Your task to perform on an android device: toggle notifications settings in the gmail app Image 0: 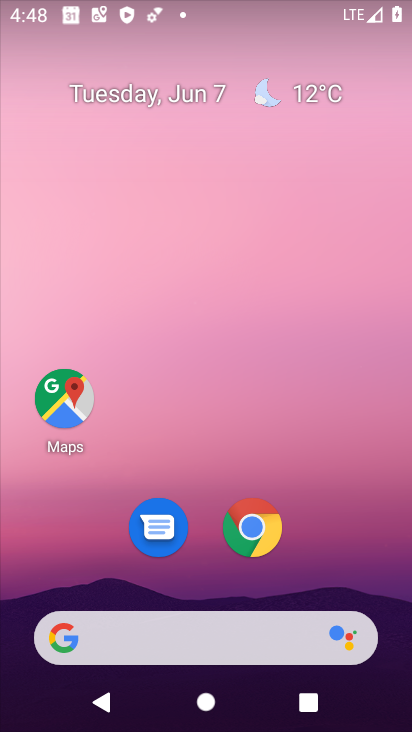
Step 0: drag from (336, 537) to (159, 36)
Your task to perform on an android device: toggle notifications settings in the gmail app Image 1: 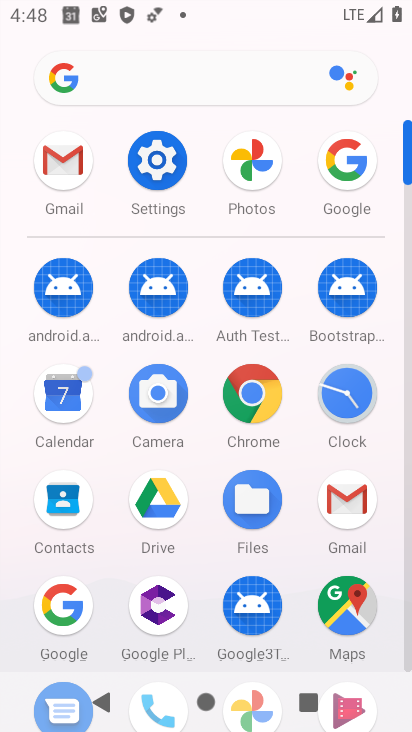
Step 1: click (65, 153)
Your task to perform on an android device: toggle notifications settings in the gmail app Image 2: 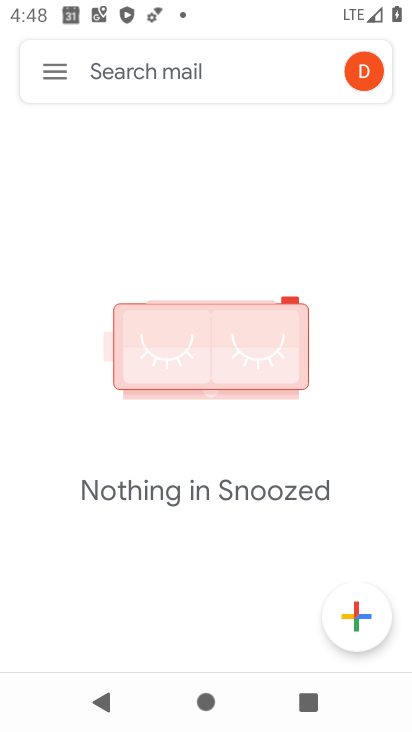
Step 2: click (54, 63)
Your task to perform on an android device: toggle notifications settings in the gmail app Image 3: 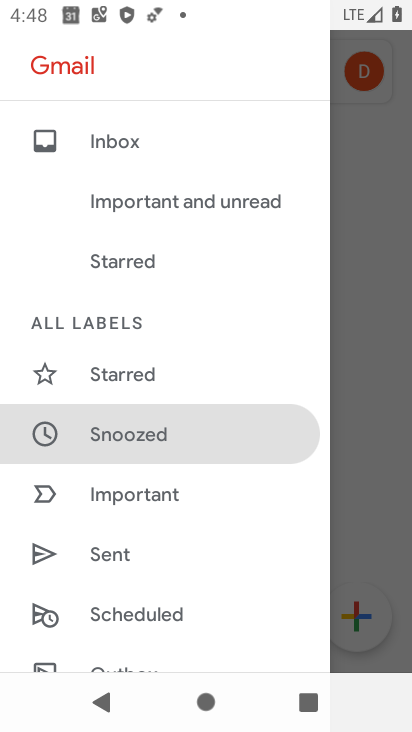
Step 3: drag from (146, 522) to (149, 339)
Your task to perform on an android device: toggle notifications settings in the gmail app Image 4: 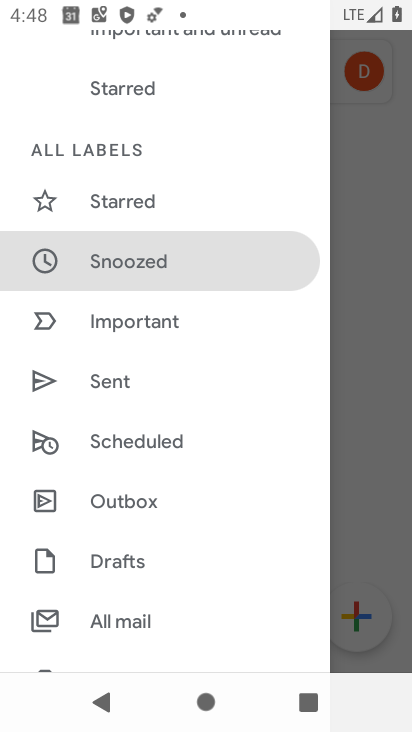
Step 4: drag from (111, 463) to (145, 317)
Your task to perform on an android device: toggle notifications settings in the gmail app Image 5: 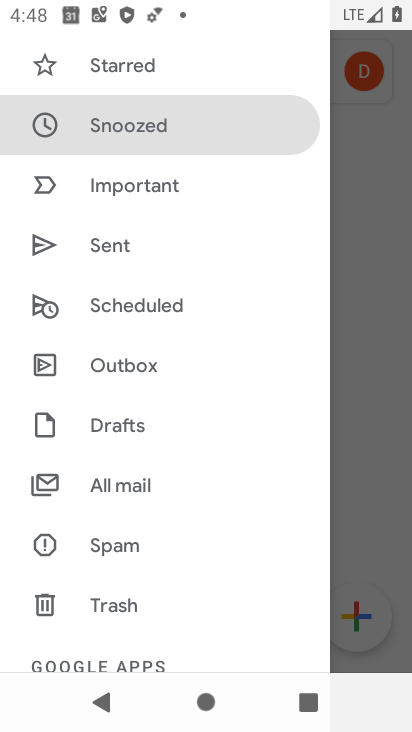
Step 5: drag from (107, 388) to (144, 293)
Your task to perform on an android device: toggle notifications settings in the gmail app Image 6: 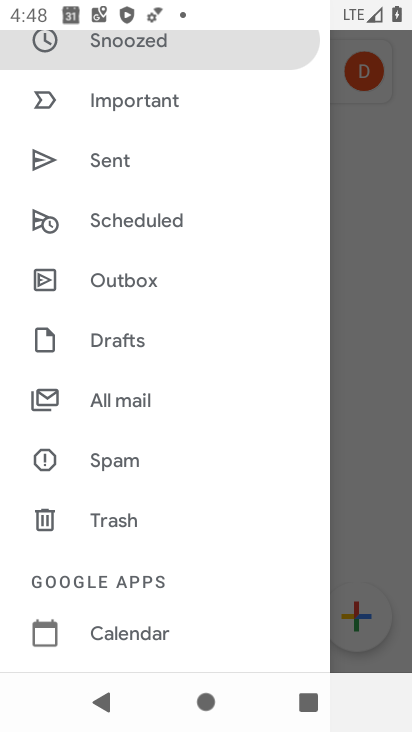
Step 6: drag from (91, 433) to (146, 323)
Your task to perform on an android device: toggle notifications settings in the gmail app Image 7: 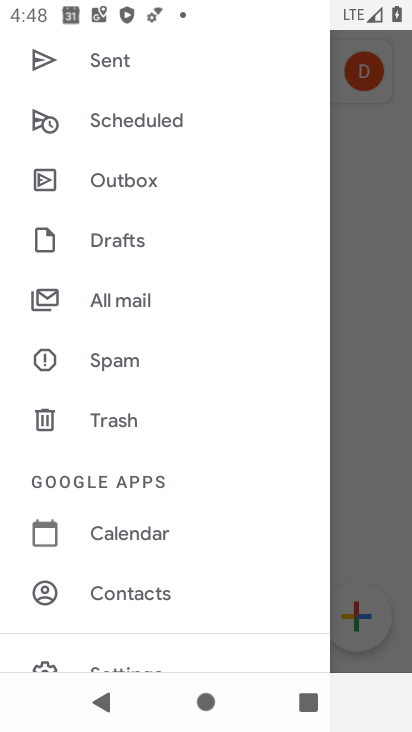
Step 7: drag from (96, 396) to (126, 312)
Your task to perform on an android device: toggle notifications settings in the gmail app Image 8: 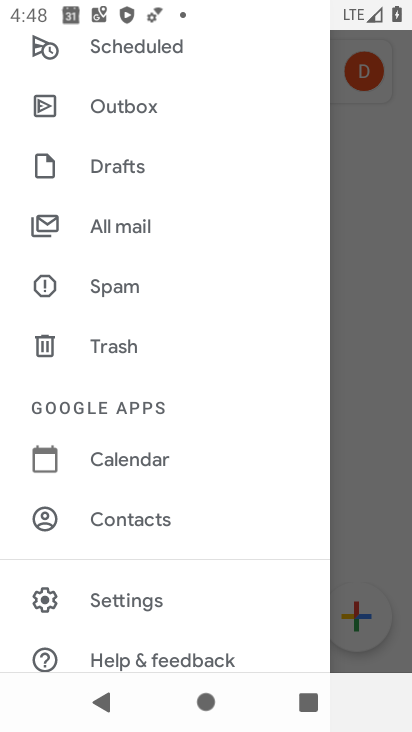
Step 8: drag from (98, 481) to (146, 368)
Your task to perform on an android device: toggle notifications settings in the gmail app Image 9: 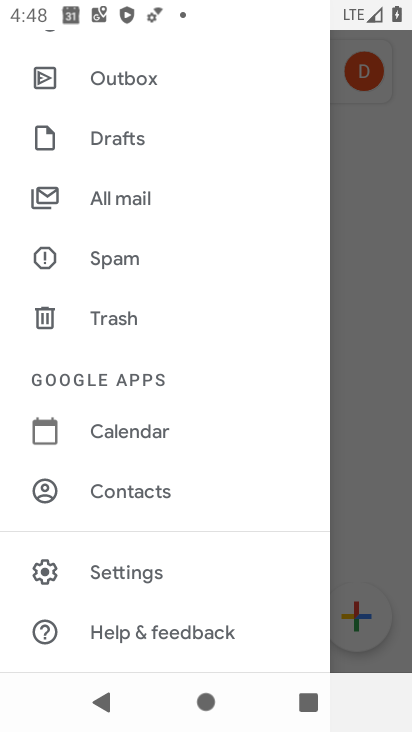
Step 9: click (131, 573)
Your task to perform on an android device: toggle notifications settings in the gmail app Image 10: 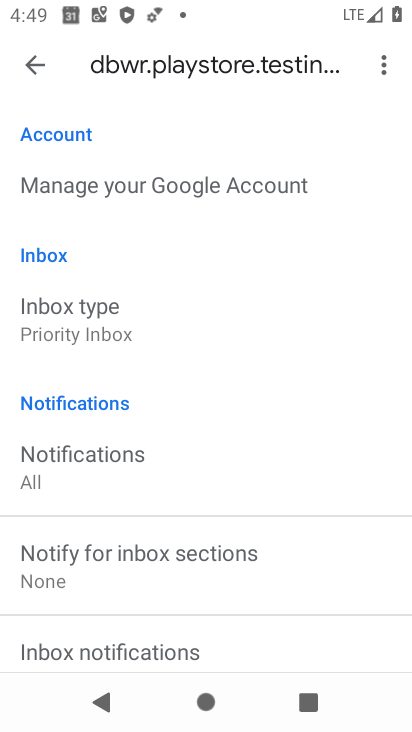
Step 10: drag from (183, 479) to (215, 331)
Your task to perform on an android device: toggle notifications settings in the gmail app Image 11: 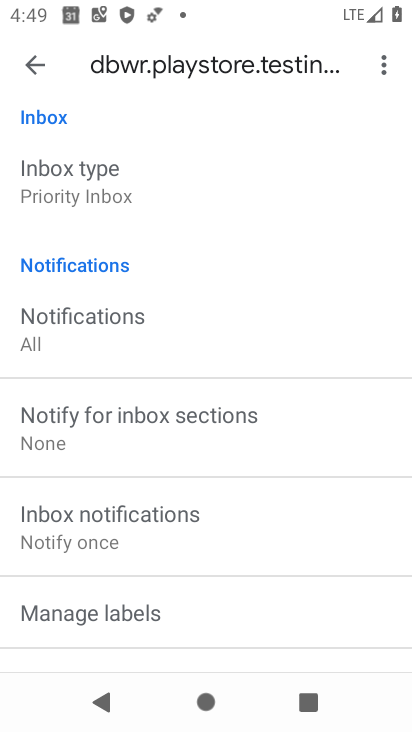
Step 11: drag from (187, 539) to (155, 359)
Your task to perform on an android device: toggle notifications settings in the gmail app Image 12: 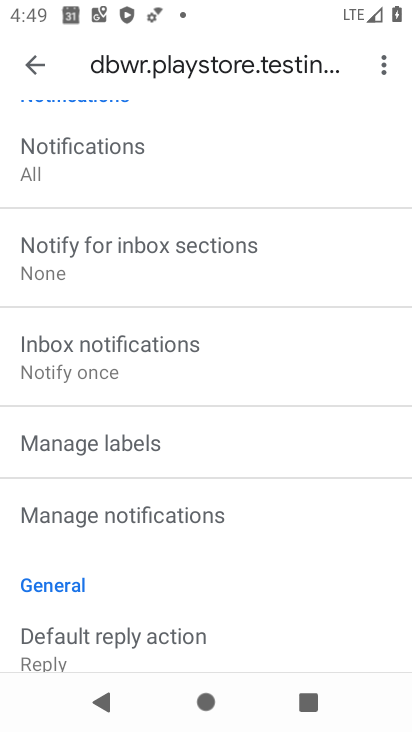
Step 12: click (134, 521)
Your task to perform on an android device: toggle notifications settings in the gmail app Image 13: 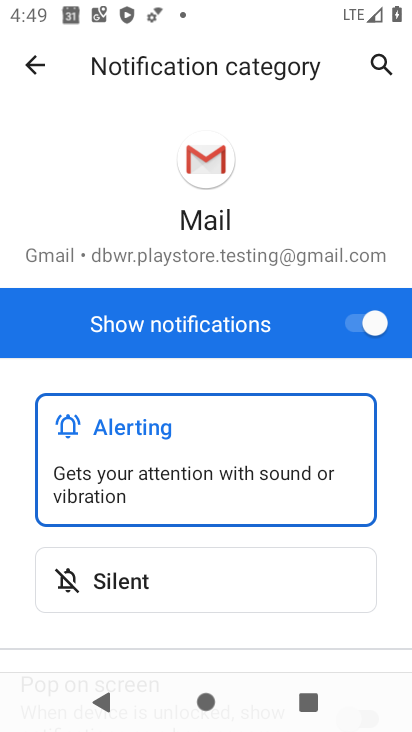
Step 13: click (361, 321)
Your task to perform on an android device: toggle notifications settings in the gmail app Image 14: 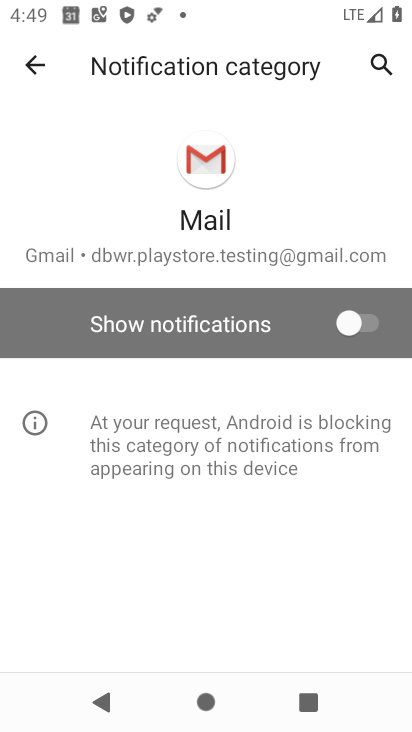
Step 14: task complete